Your task to perform on an android device: Add "sony triple a" to the cart on walmart.com, then select checkout. Image 0: 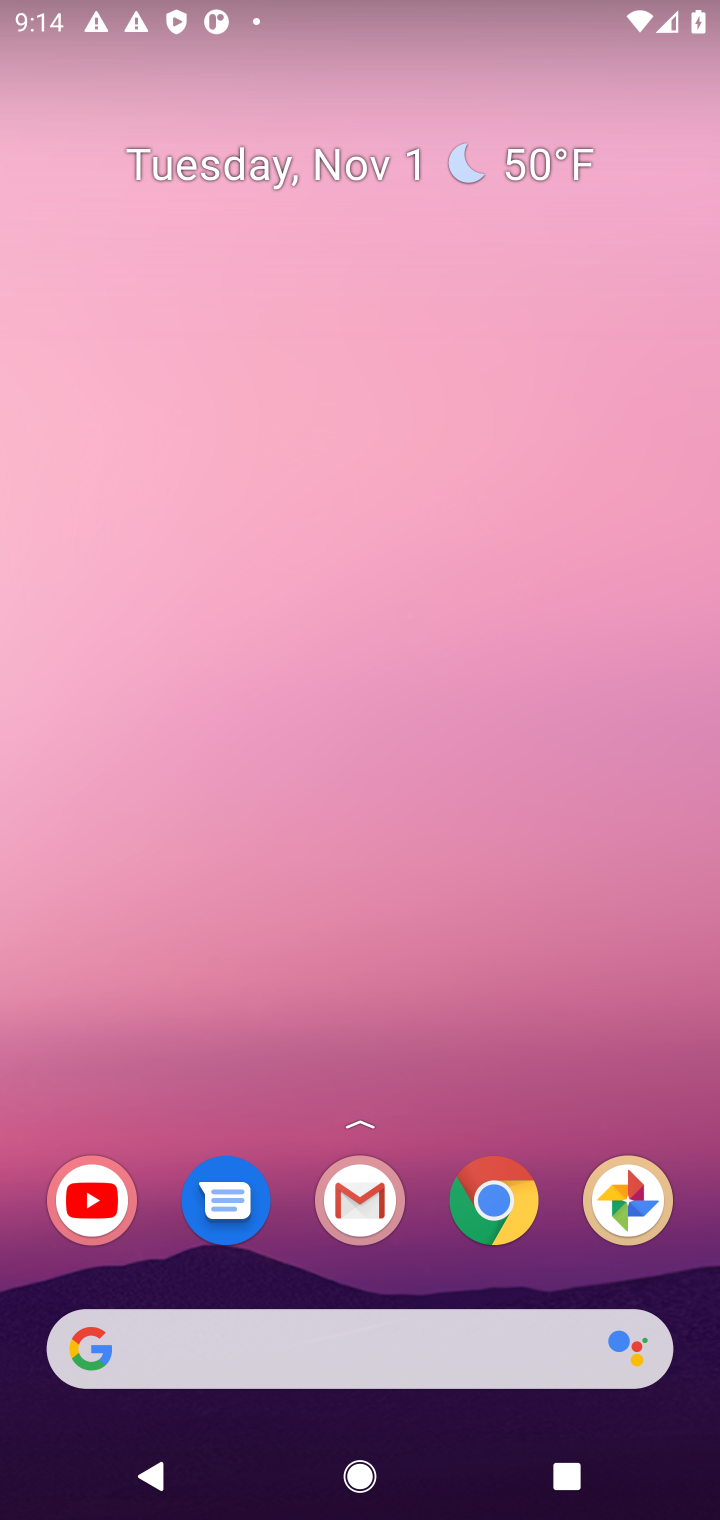
Step 0: click (269, 1337)
Your task to perform on an android device: Add "sony triple a" to the cart on walmart.com, then select checkout. Image 1: 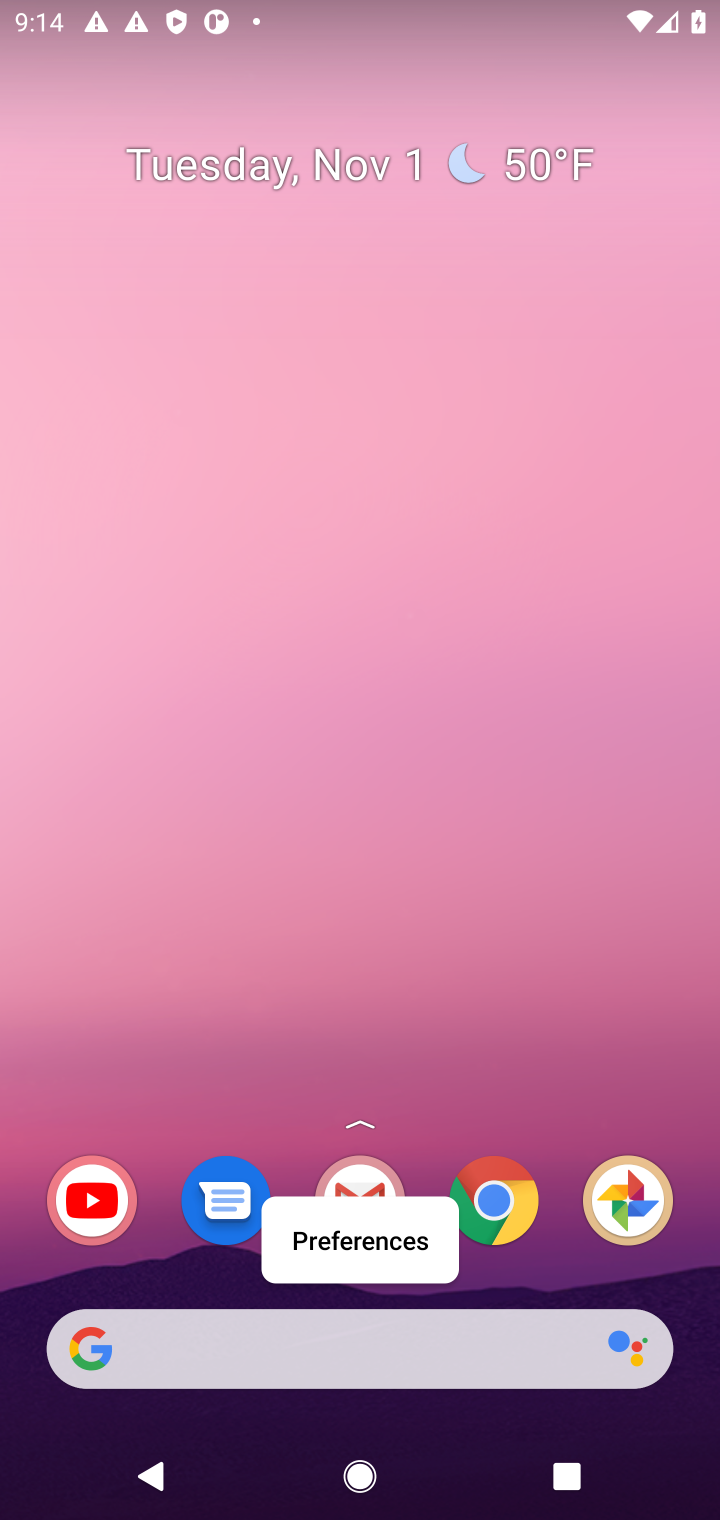
Step 1: click (386, 1331)
Your task to perform on an android device: Add "sony triple a" to the cart on walmart.com, then select checkout. Image 2: 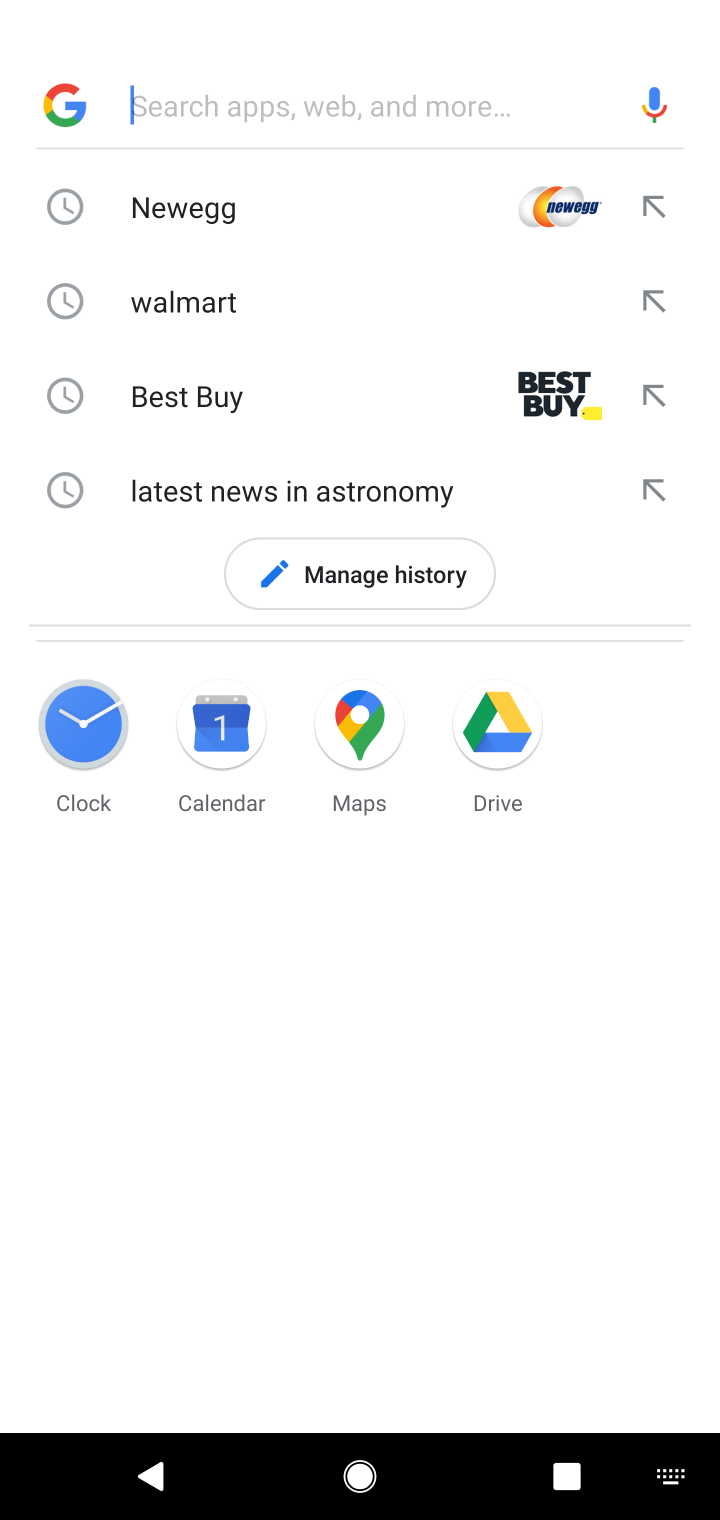
Step 2: click (221, 304)
Your task to perform on an android device: Add "sony triple a" to the cart on walmart.com, then select checkout. Image 3: 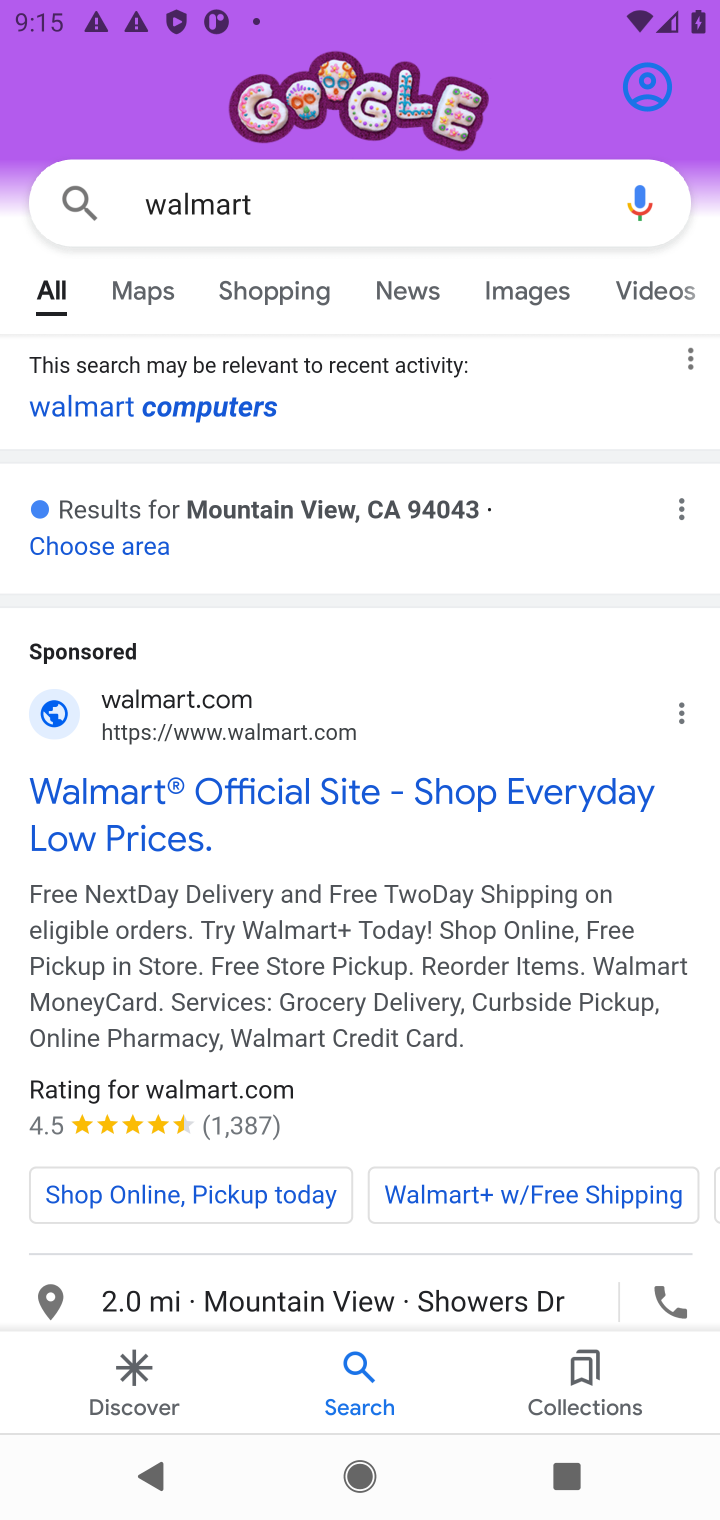
Step 3: click (188, 787)
Your task to perform on an android device: Add "sony triple a" to the cart on walmart.com, then select checkout. Image 4: 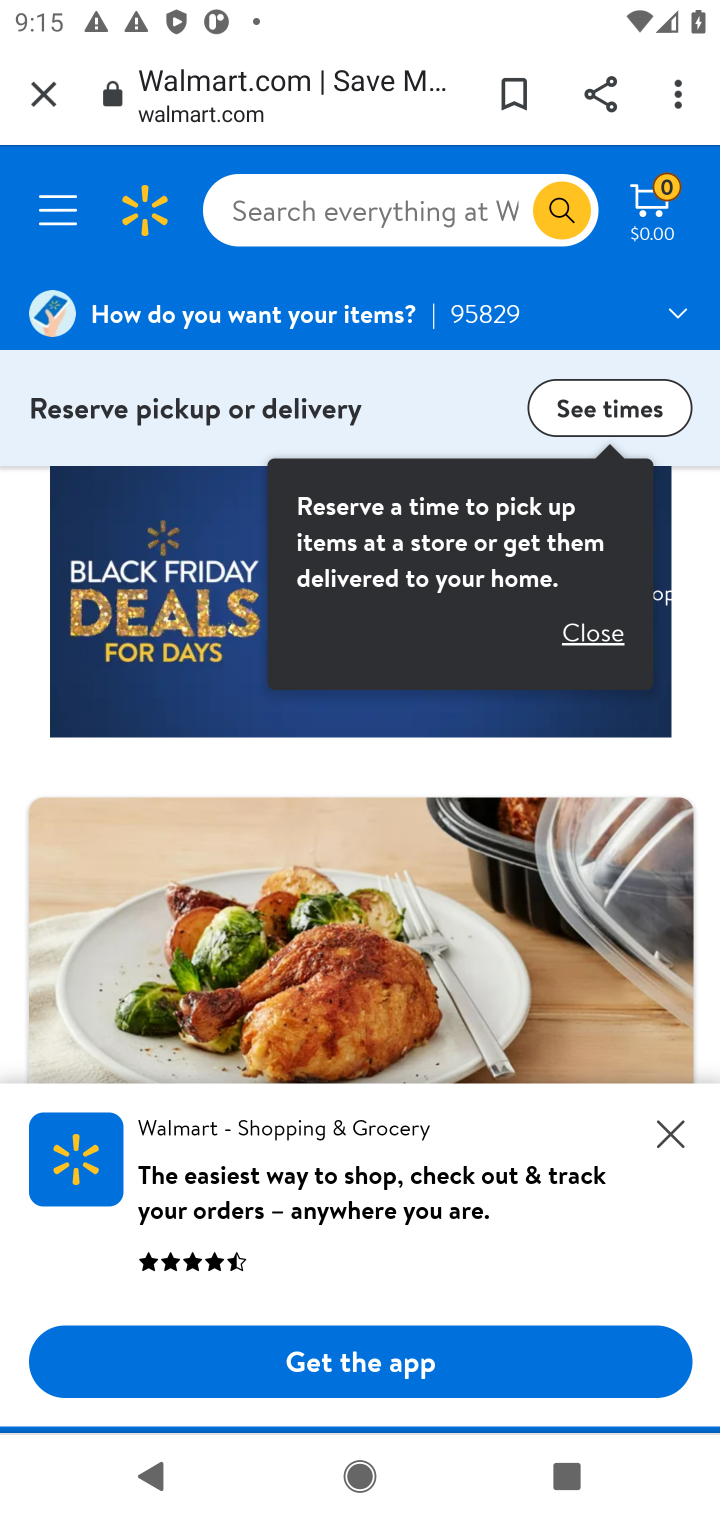
Step 4: click (368, 210)
Your task to perform on an android device: Add "sony triple a" to the cart on walmart.com, then select checkout. Image 5: 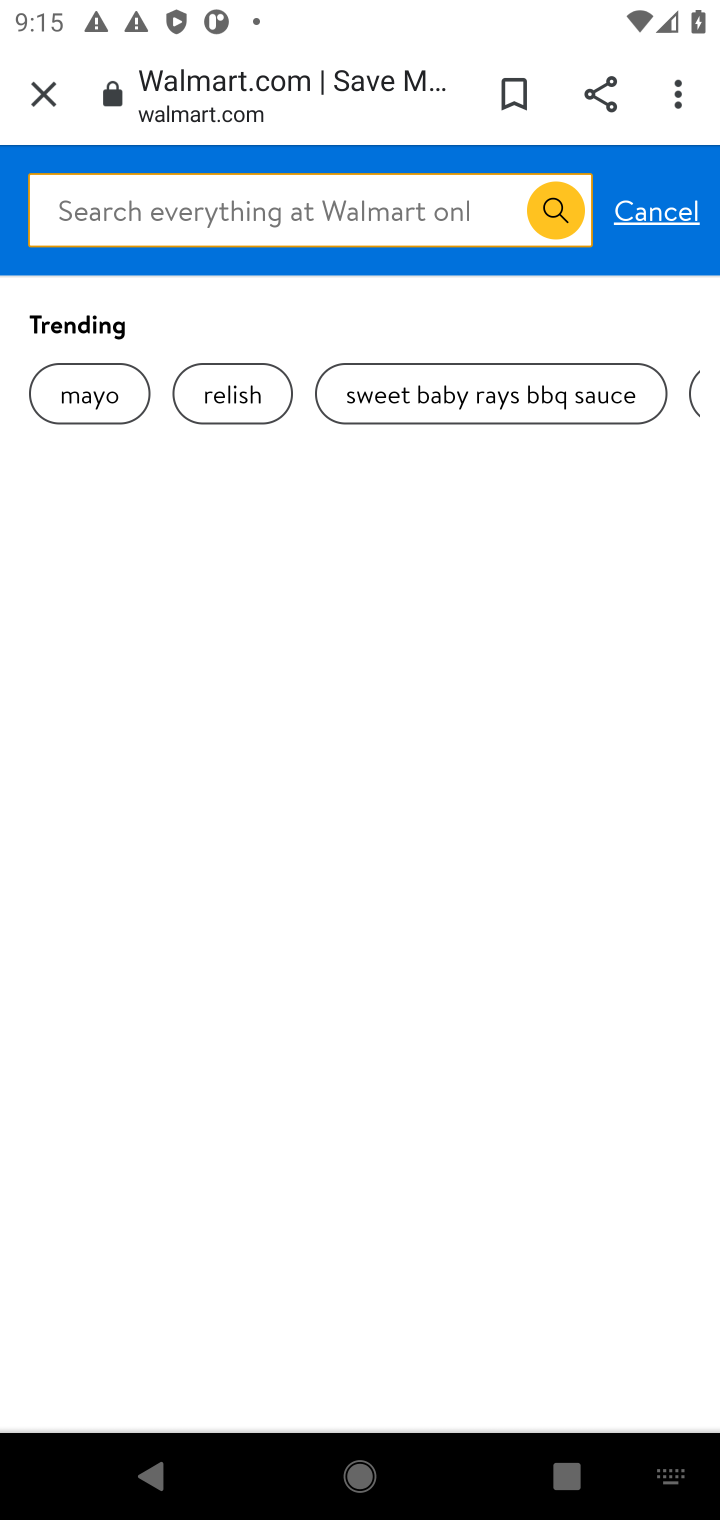
Step 5: click (204, 226)
Your task to perform on an android device: Add "sony triple a" to the cart on walmart.com, then select checkout. Image 6: 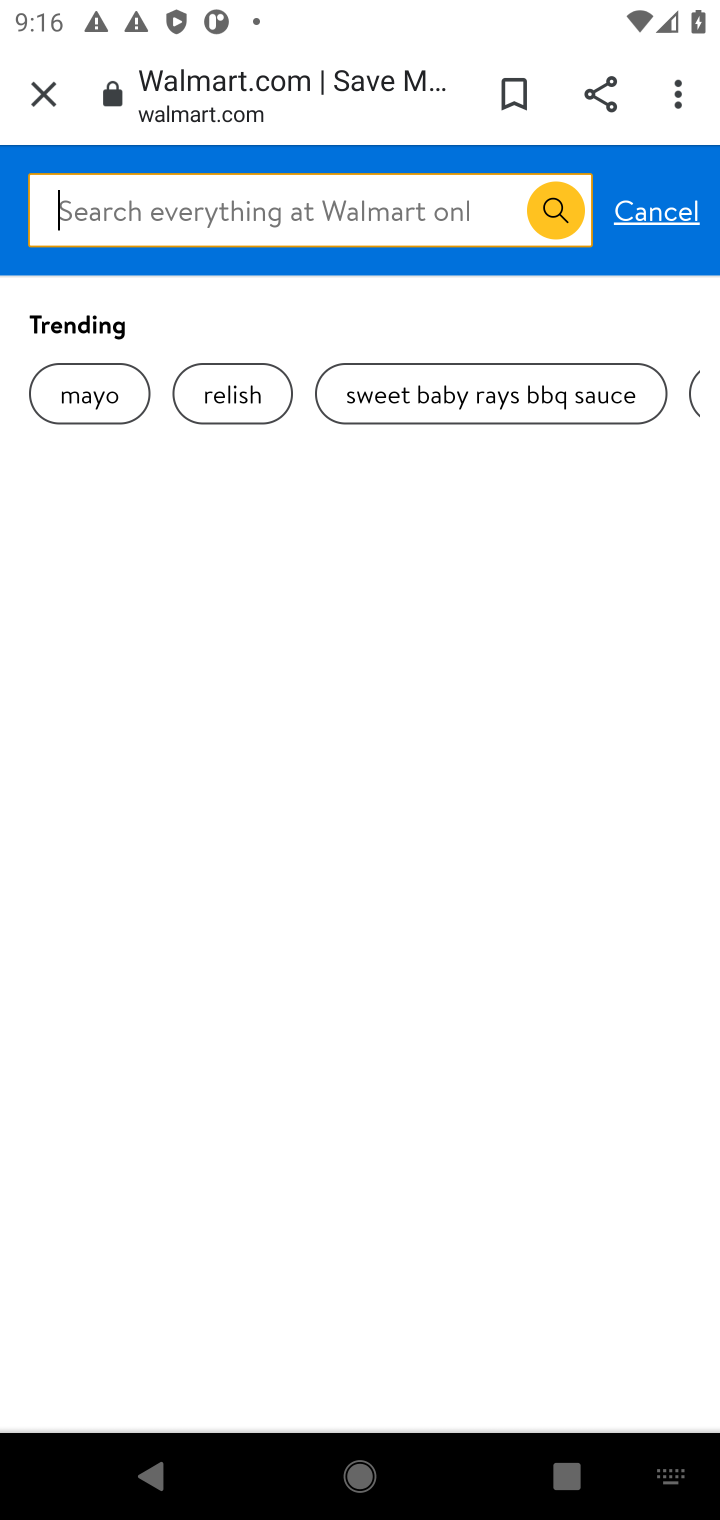
Step 6: type "sony triple a"
Your task to perform on an android device: Add "sony triple a" to the cart on walmart.com, then select checkout. Image 7: 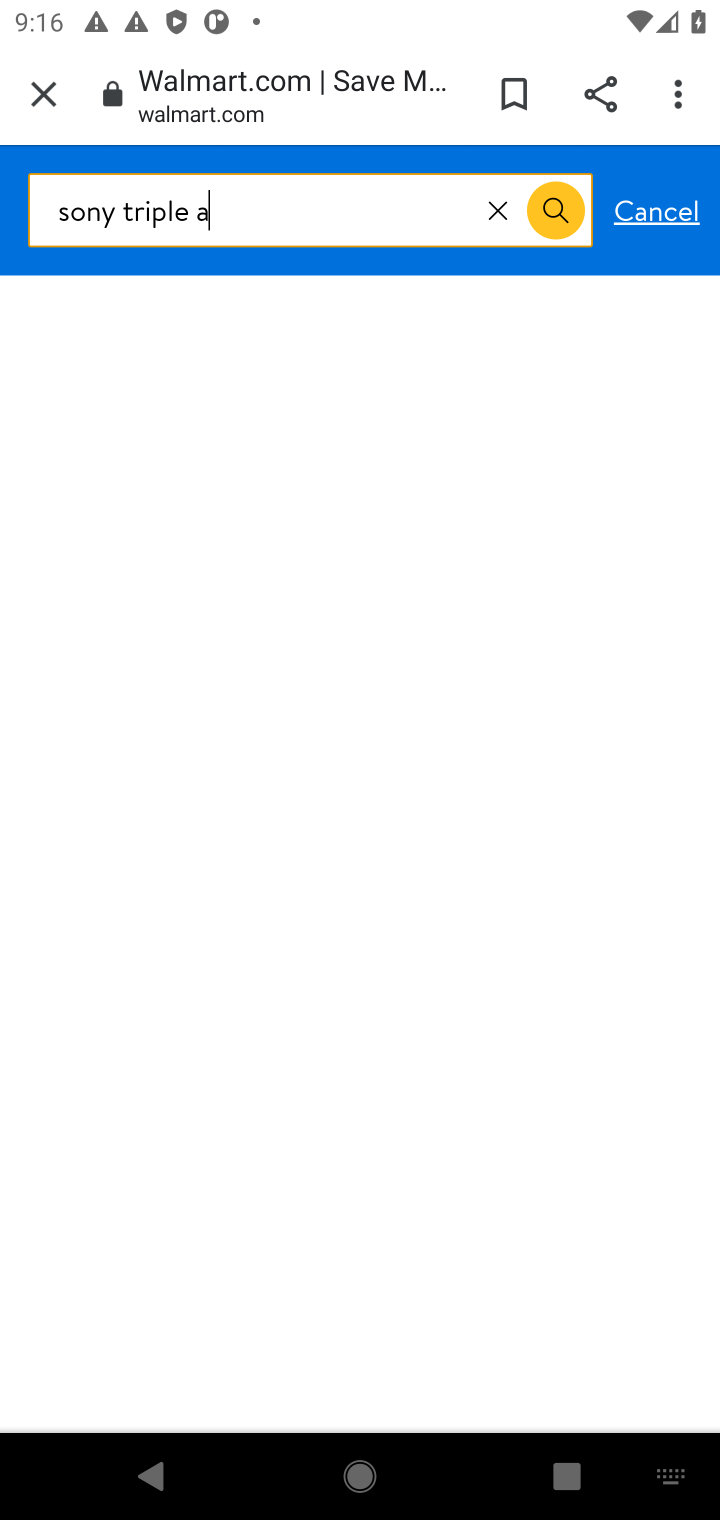
Step 7: click (571, 223)
Your task to perform on an android device: Add "sony triple a" to the cart on walmart.com, then select checkout. Image 8: 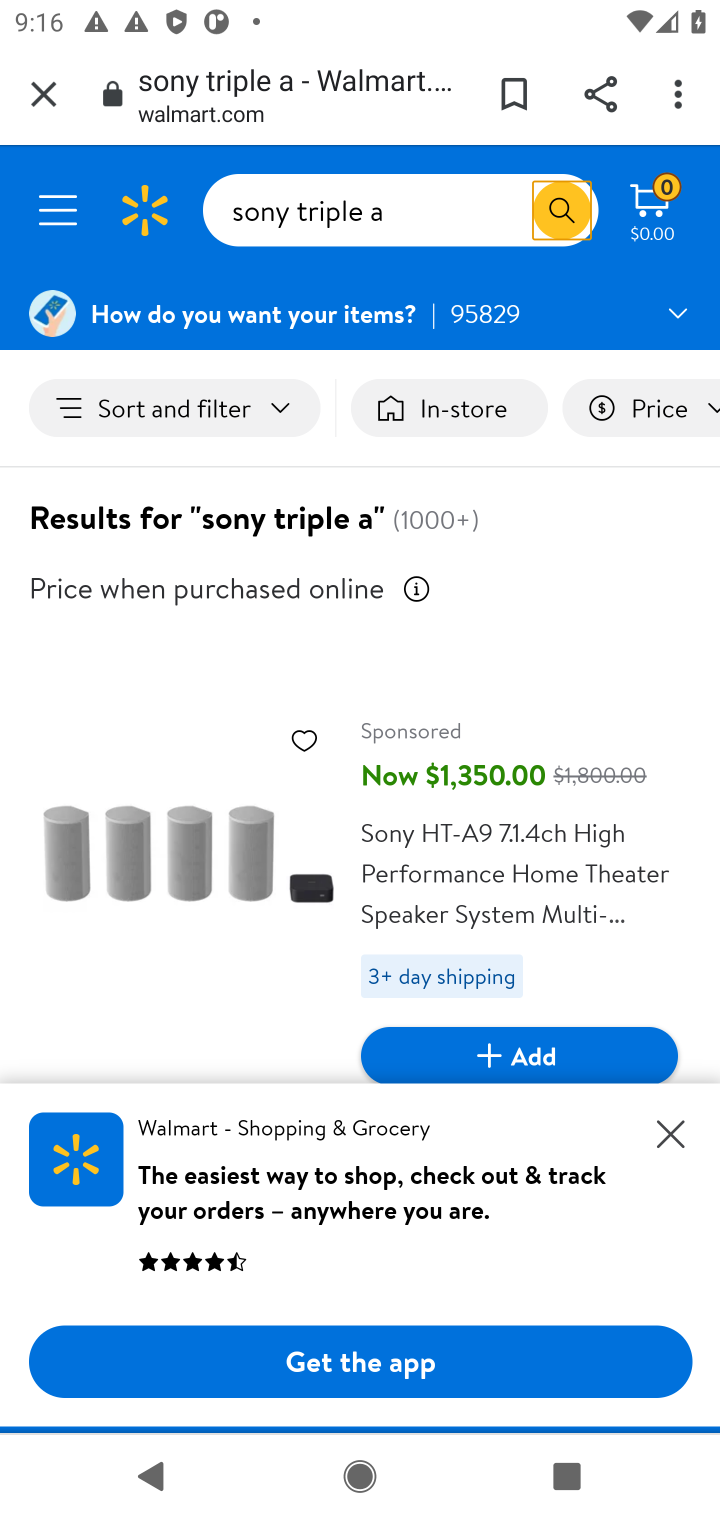
Step 8: click (665, 1141)
Your task to perform on an android device: Add "sony triple a" to the cart on walmart.com, then select checkout. Image 9: 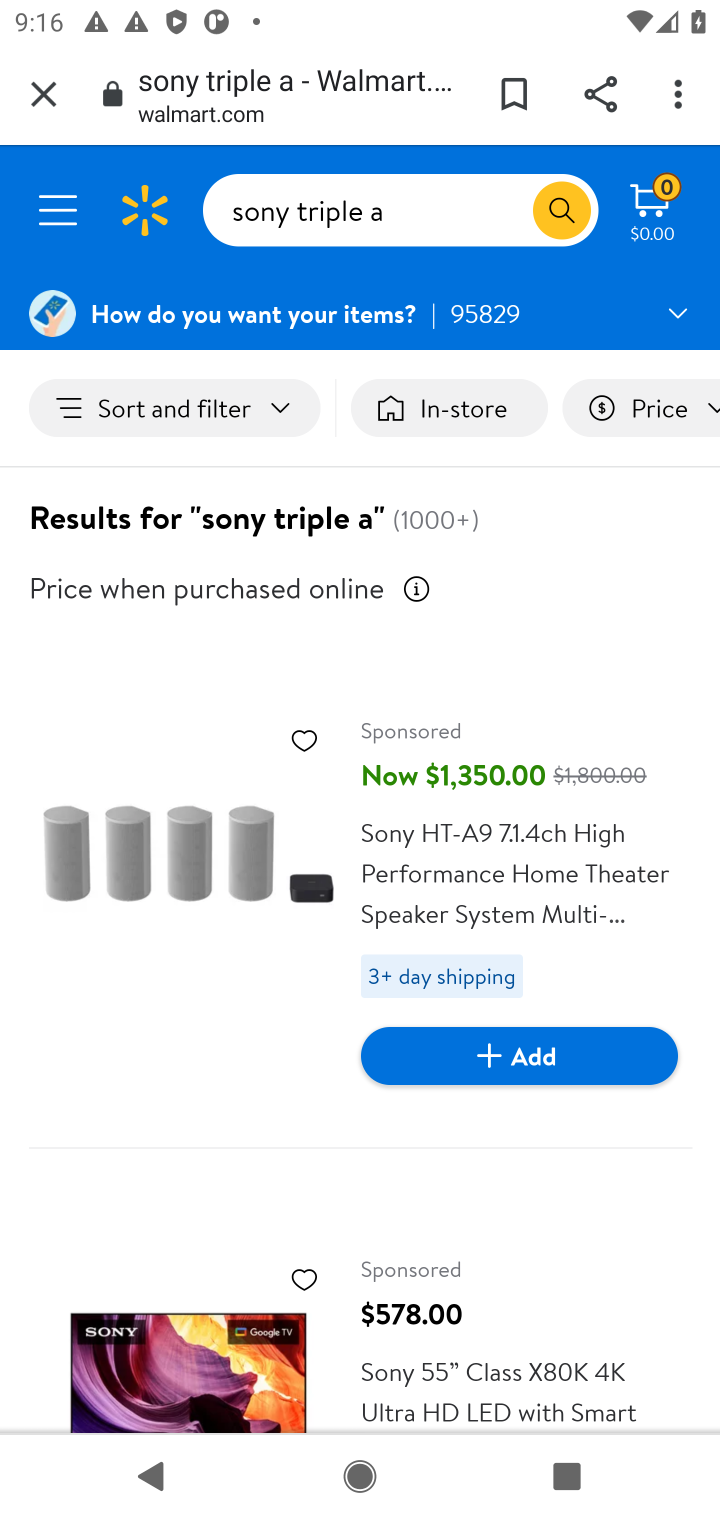
Step 9: click (507, 1073)
Your task to perform on an android device: Add "sony triple a" to the cart on walmart.com, then select checkout. Image 10: 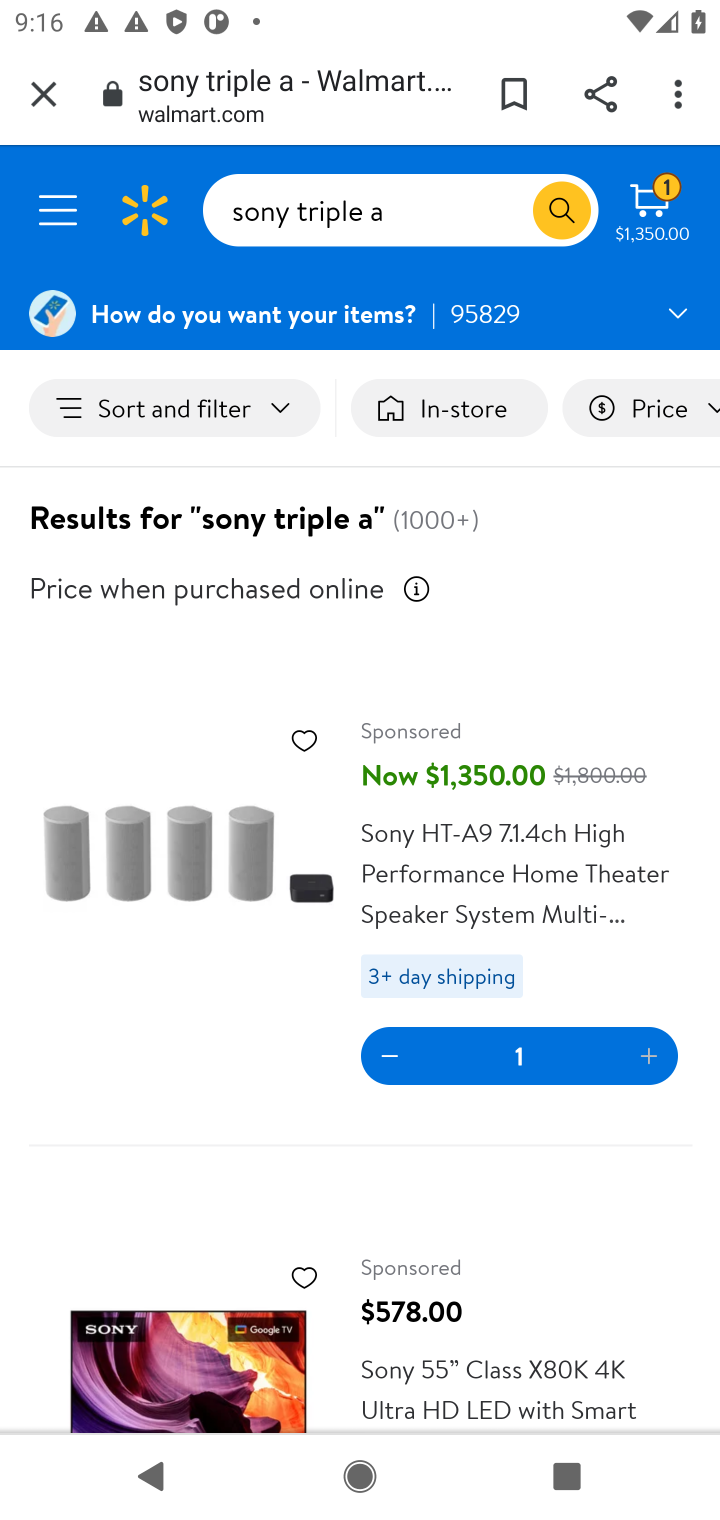
Step 10: task complete